Your task to perform on an android device: Go to display settings Image 0: 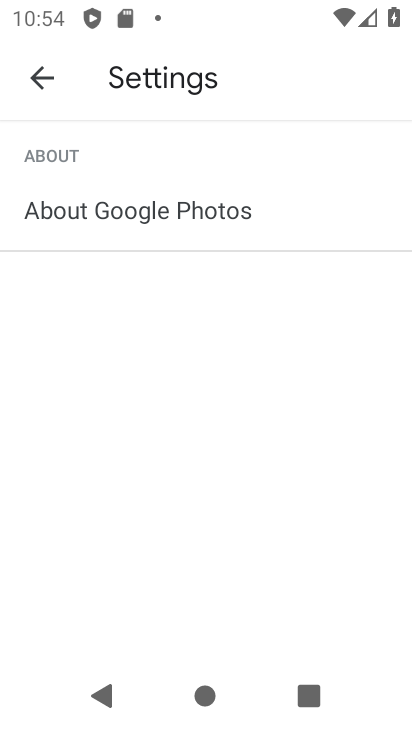
Step 0: press home button
Your task to perform on an android device: Go to display settings Image 1: 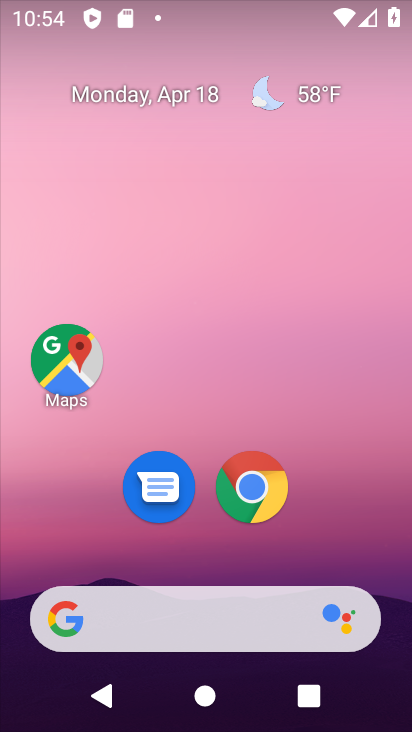
Step 1: drag from (373, 468) to (315, 105)
Your task to perform on an android device: Go to display settings Image 2: 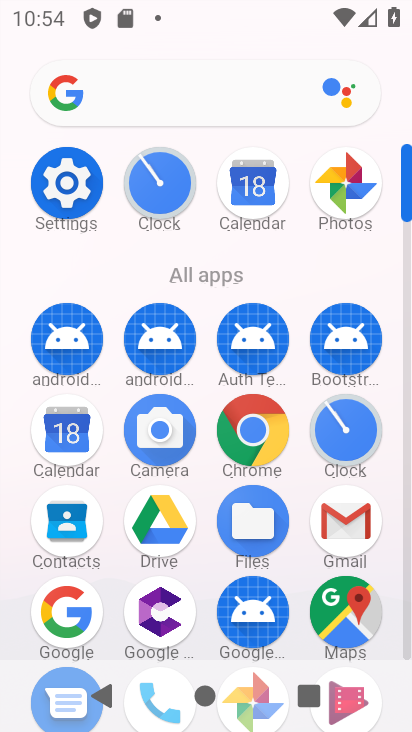
Step 2: click (61, 190)
Your task to perform on an android device: Go to display settings Image 3: 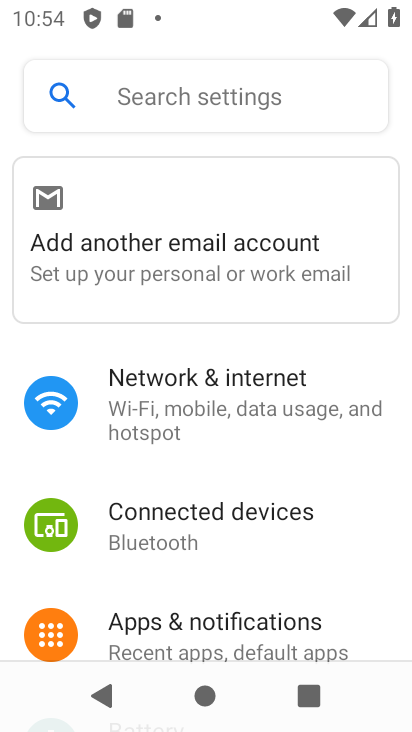
Step 3: drag from (69, 359) to (76, 229)
Your task to perform on an android device: Go to display settings Image 4: 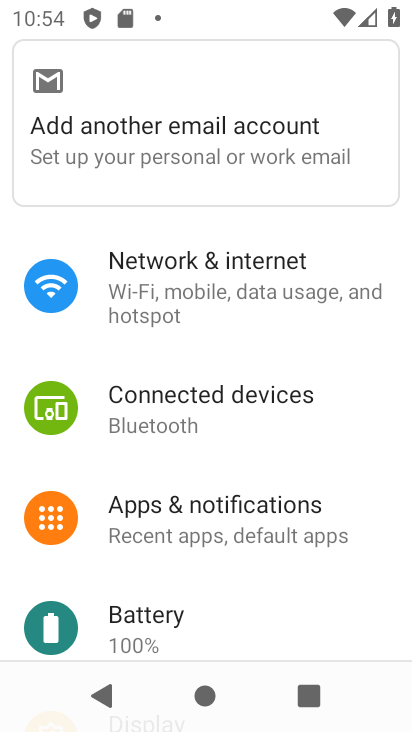
Step 4: drag from (80, 464) to (81, 204)
Your task to perform on an android device: Go to display settings Image 5: 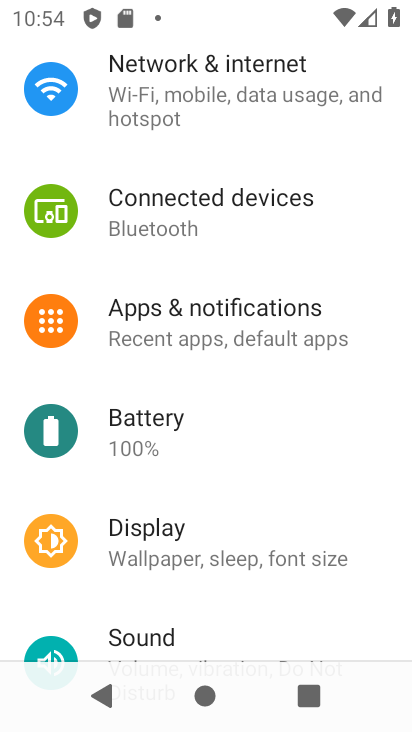
Step 5: click (134, 542)
Your task to perform on an android device: Go to display settings Image 6: 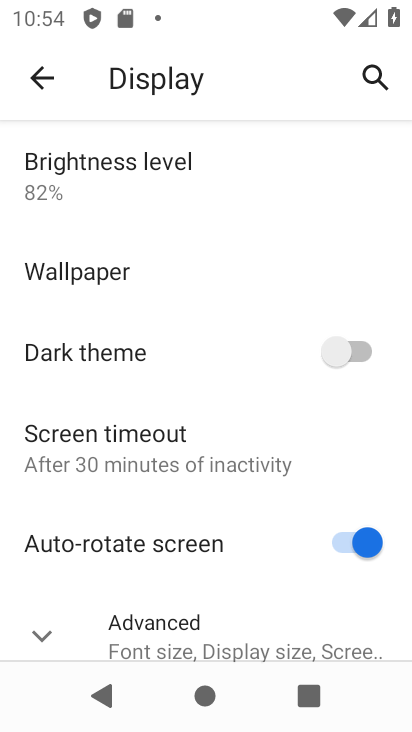
Step 6: task complete